Your task to perform on an android device: Open the calendar app, open the side menu, and click the "Day" option Image 0: 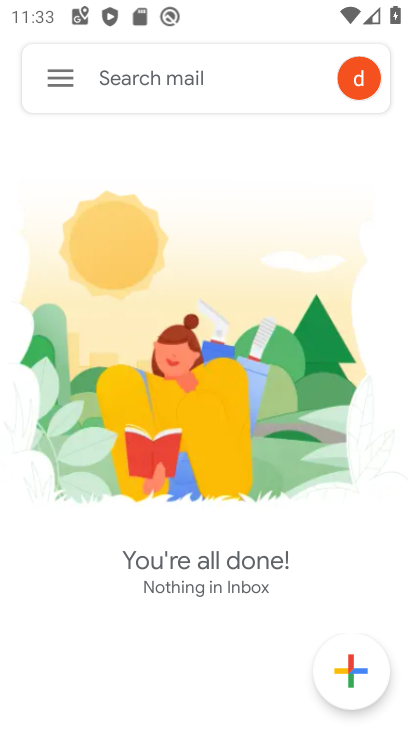
Step 0: press back button
Your task to perform on an android device: Open the calendar app, open the side menu, and click the "Day" option Image 1: 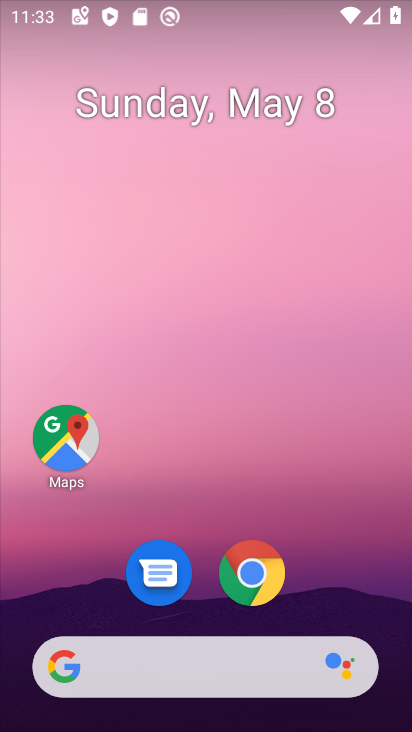
Step 1: drag from (320, 592) to (275, 46)
Your task to perform on an android device: Open the calendar app, open the side menu, and click the "Day" option Image 2: 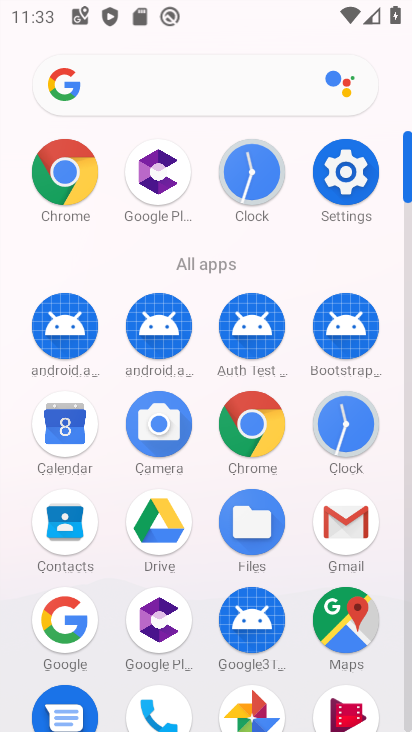
Step 2: click (61, 424)
Your task to perform on an android device: Open the calendar app, open the side menu, and click the "Day" option Image 3: 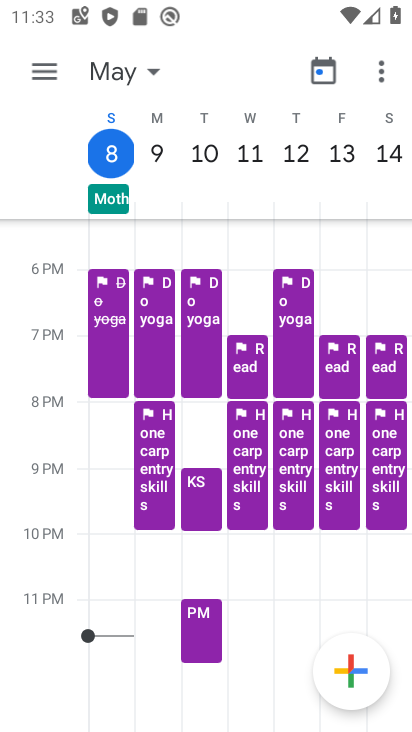
Step 3: click (44, 74)
Your task to perform on an android device: Open the calendar app, open the side menu, and click the "Day" option Image 4: 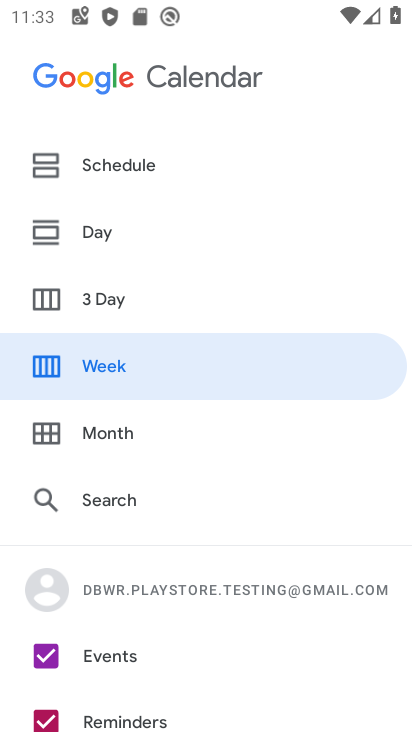
Step 4: click (82, 222)
Your task to perform on an android device: Open the calendar app, open the side menu, and click the "Day" option Image 5: 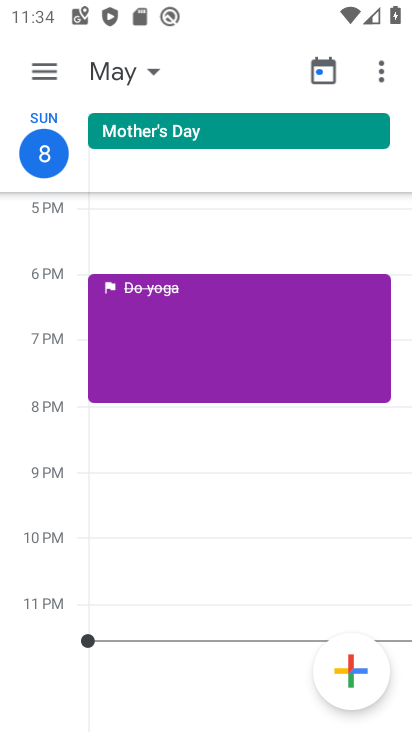
Step 5: task complete